Your task to perform on an android device: Go to internet settings Image 0: 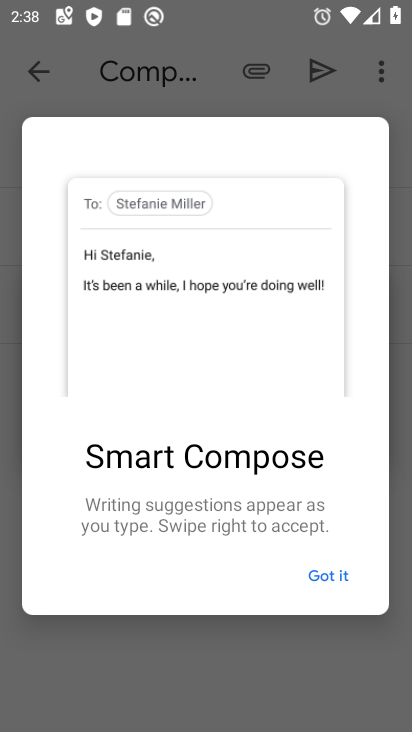
Step 0: press home button
Your task to perform on an android device: Go to internet settings Image 1: 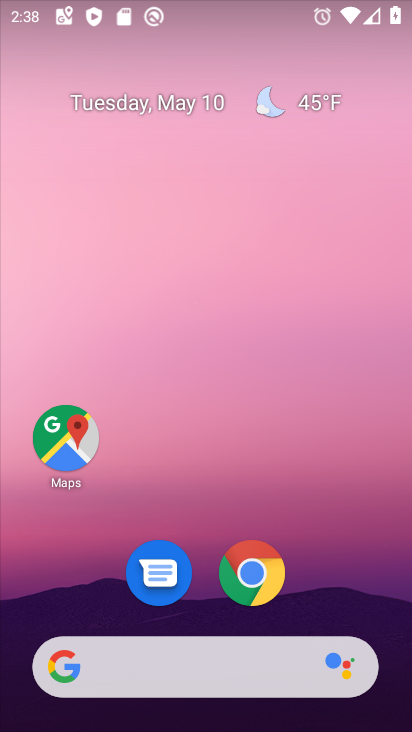
Step 1: drag from (237, 722) to (307, 139)
Your task to perform on an android device: Go to internet settings Image 2: 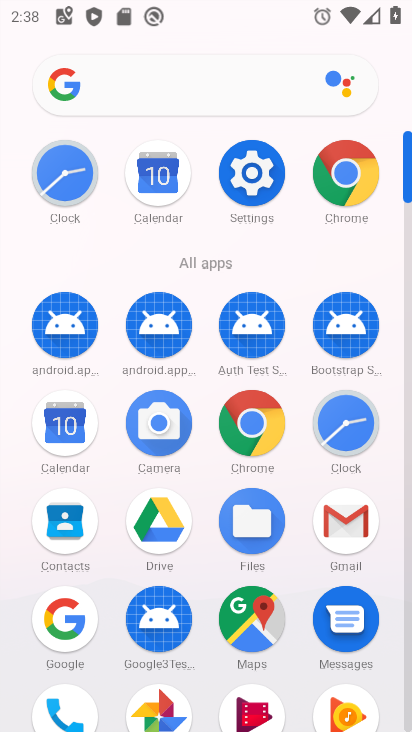
Step 2: click (270, 151)
Your task to perform on an android device: Go to internet settings Image 3: 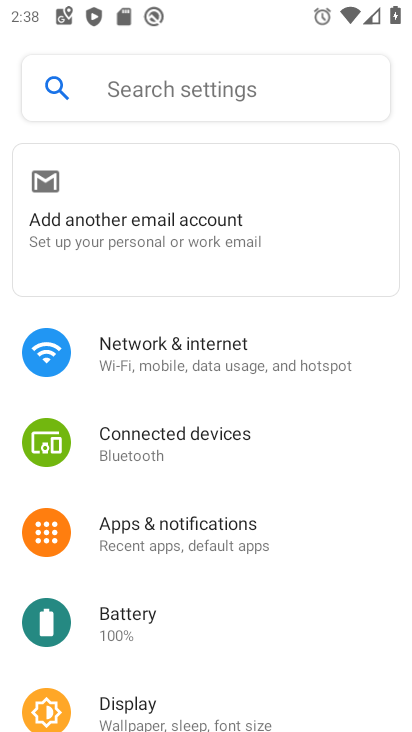
Step 3: click (187, 363)
Your task to perform on an android device: Go to internet settings Image 4: 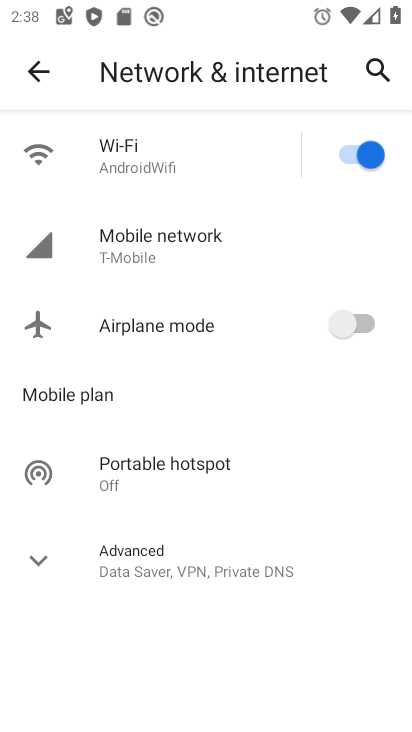
Step 4: task complete